Your task to perform on an android device: What's on my calendar today? Image 0: 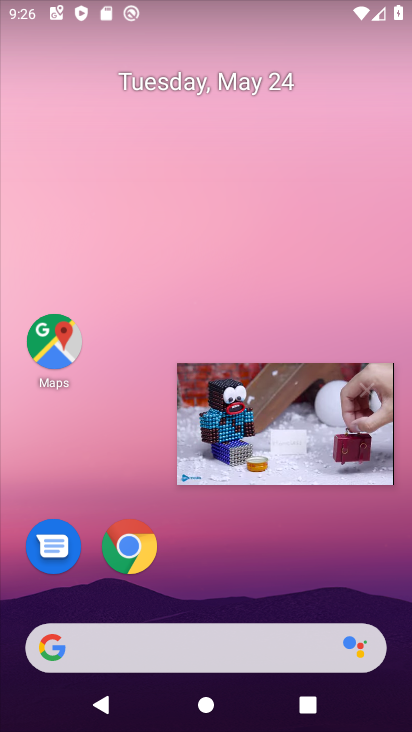
Step 0: drag from (276, 410) to (275, 731)
Your task to perform on an android device: What's on my calendar today? Image 1: 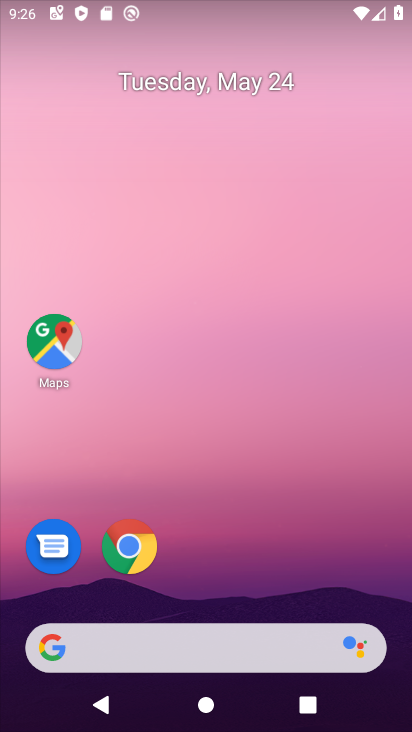
Step 1: drag from (273, 501) to (216, 35)
Your task to perform on an android device: What's on my calendar today? Image 2: 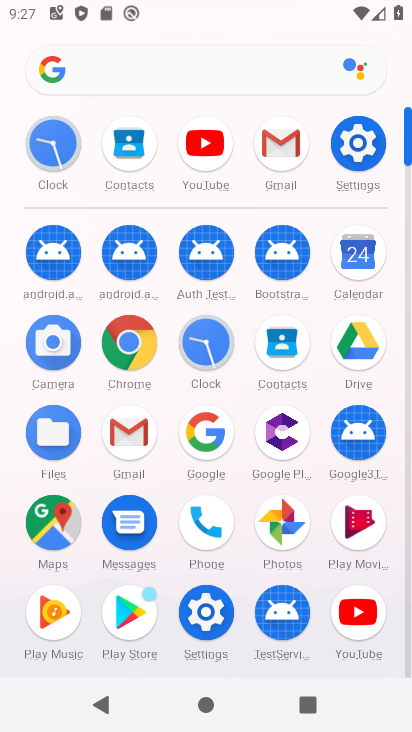
Step 2: click (349, 257)
Your task to perform on an android device: What's on my calendar today? Image 3: 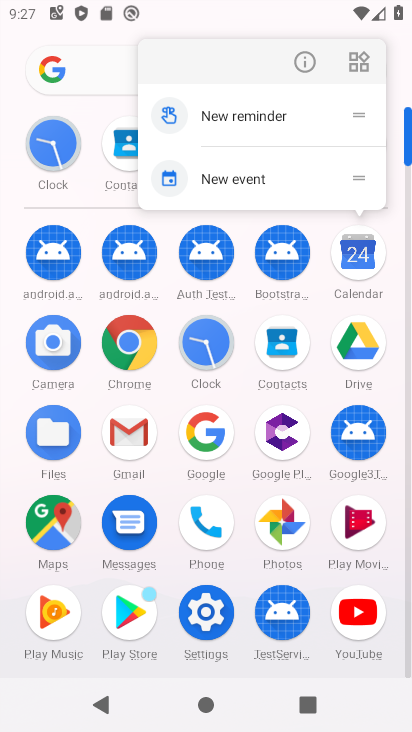
Step 3: click (349, 256)
Your task to perform on an android device: What's on my calendar today? Image 4: 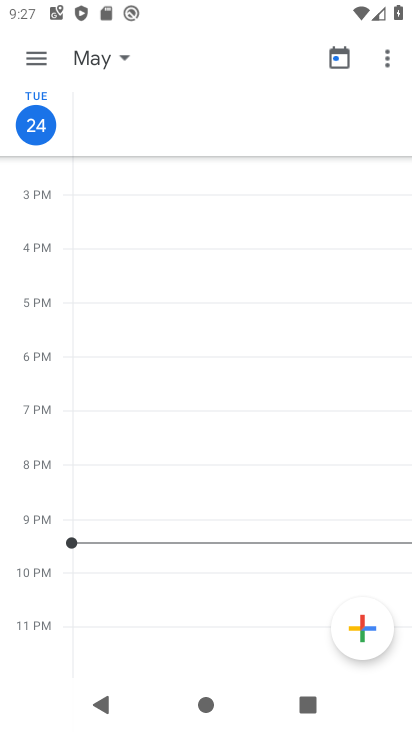
Step 4: click (41, 62)
Your task to perform on an android device: What's on my calendar today? Image 5: 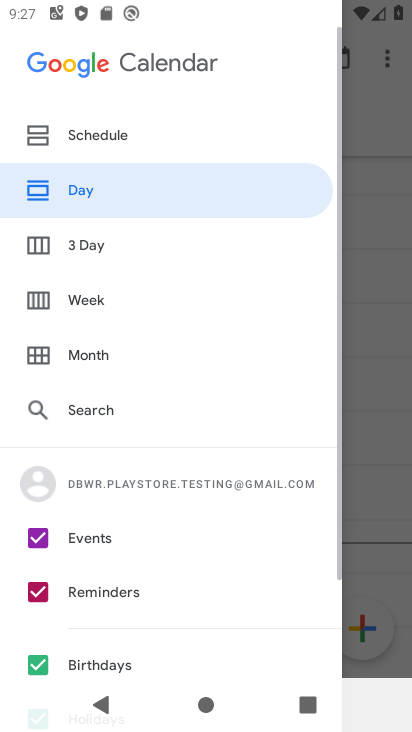
Step 5: click (60, 346)
Your task to perform on an android device: What's on my calendar today? Image 6: 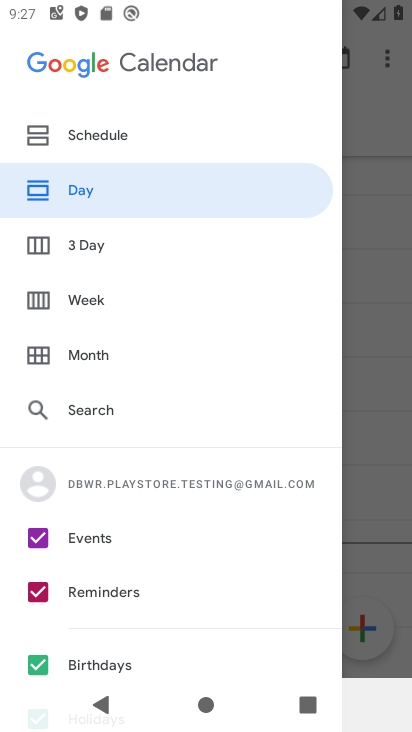
Step 6: click (40, 352)
Your task to perform on an android device: What's on my calendar today? Image 7: 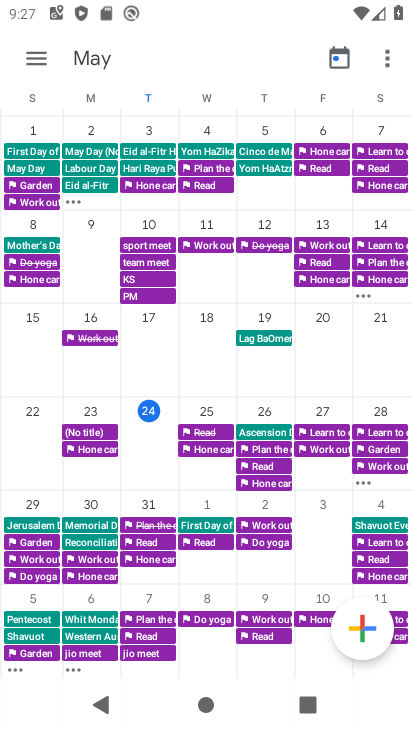
Step 7: click (155, 420)
Your task to perform on an android device: What's on my calendar today? Image 8: 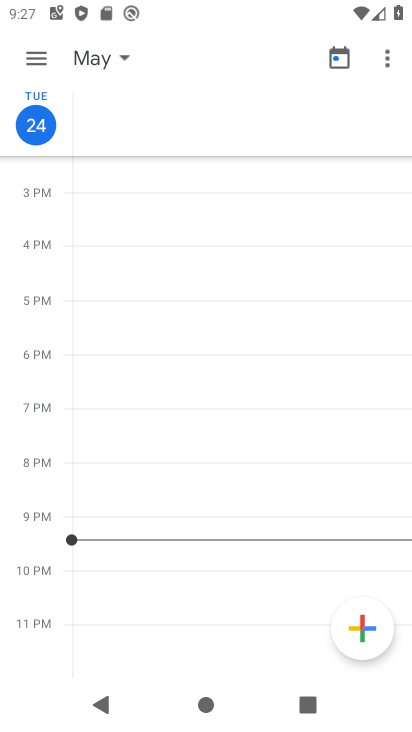
Step 8: click (33, 53)
Your task to perform on an android device: What's on my calendar today? Image 9: 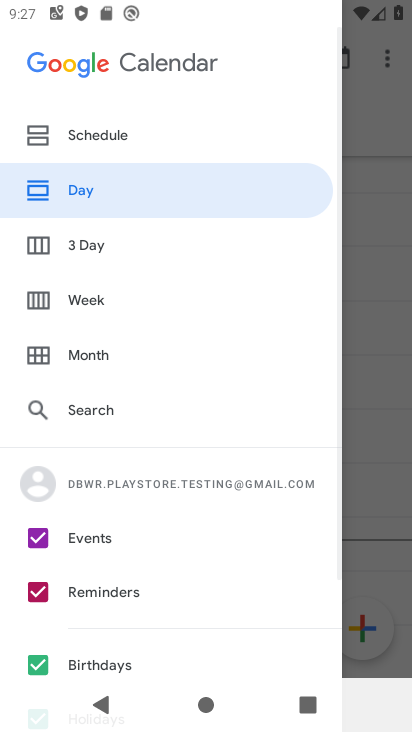
Step 9: click (85, 129)
Your task to perform on an android device: What's on my calendar today? Image 10: 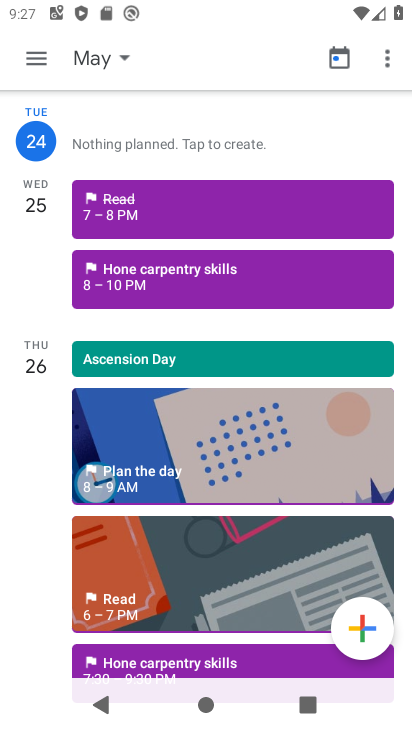
Step 10: task complete